Your task to perform on an android device: Open settings Image 0: 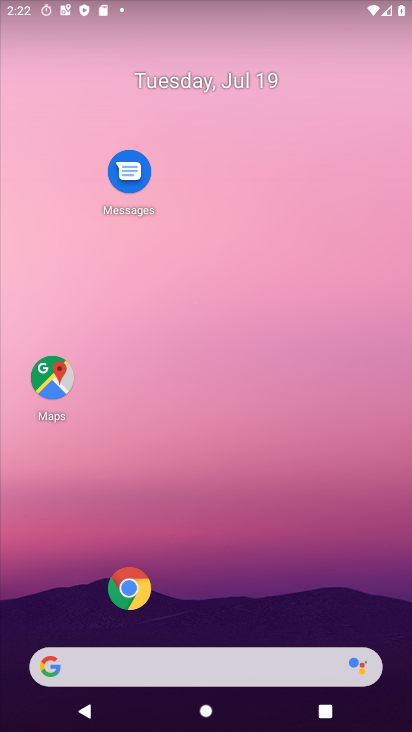
Step 0: click (288, 57)
Your task to perform on an android device: Open settings Image 1: 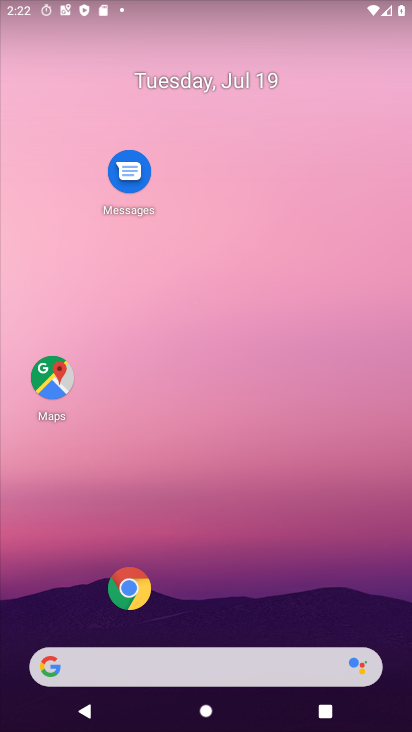
Step 1: drag from (8, 678) to (245, 151)
Your task to perform on an android device: Open settings Image 2: 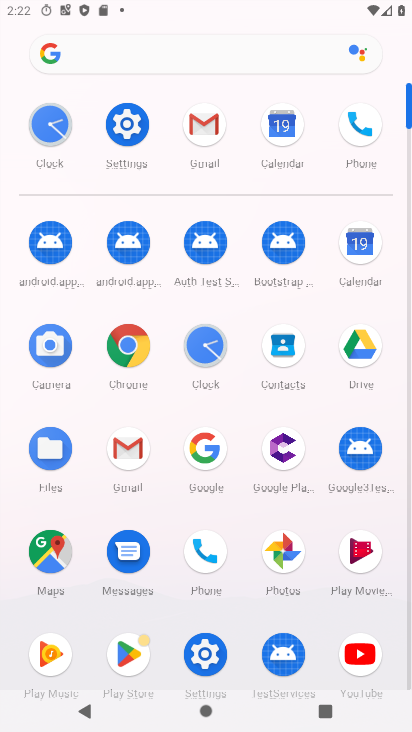
Step 2: click (204, 631)
Your task to perform on an android device: Open settings Image 3: 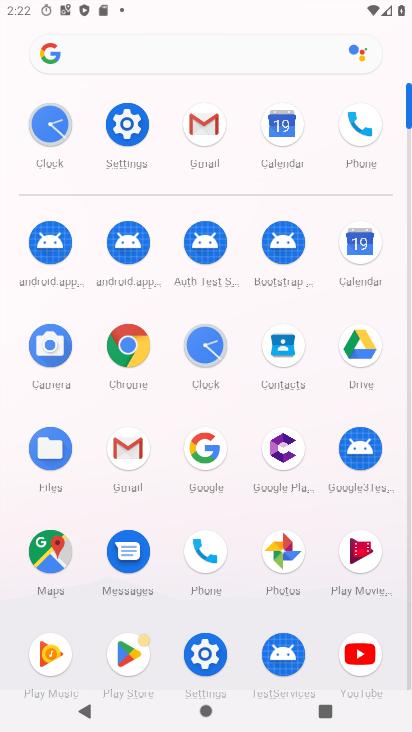
Step 3: click (206, 666)
Your task to perform on an android device: Open settings Image 4: 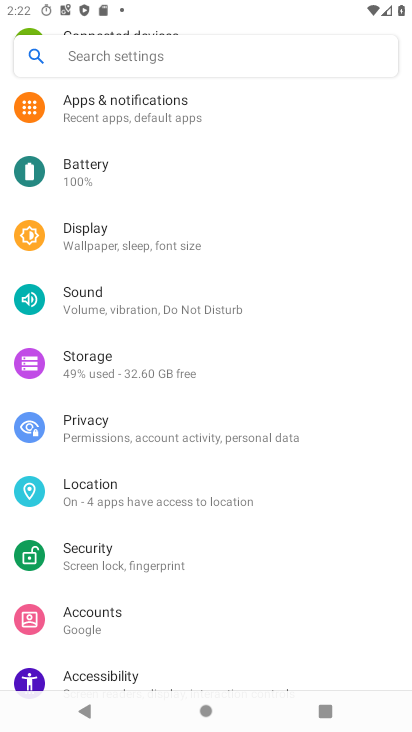
Step 4: task complete